Your task to perform on an android device: turn off location Image 0: 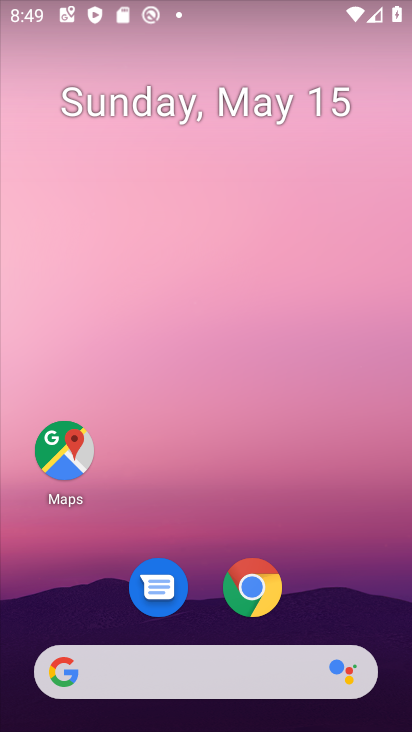
Step 0: drag from (330, 428) to (264, 129)
Your task to perform on an android device: turn off location Image 1: 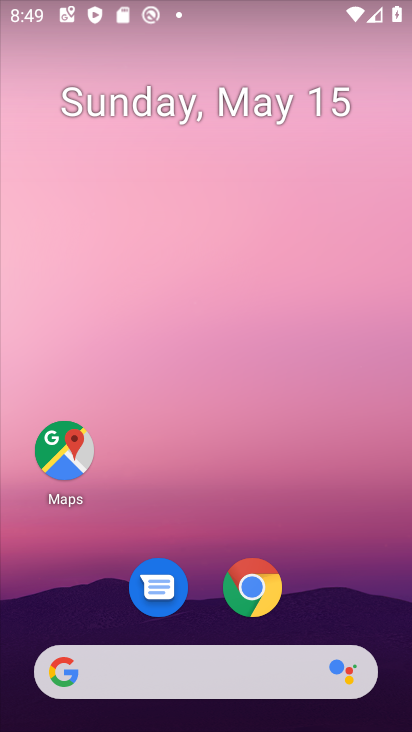
Step 1: drag from (359, 442) to (302, 43)
Your task to perform on an android device: turn off location Image 2: 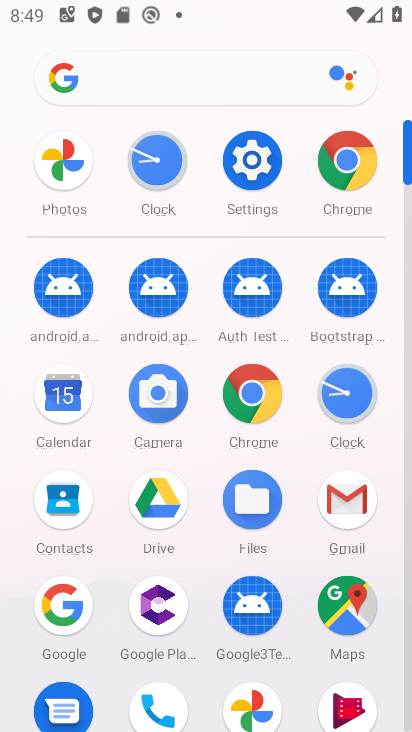
Step 2: click (256, 169)
Your task to perform on an android device: turn off location Image 3: 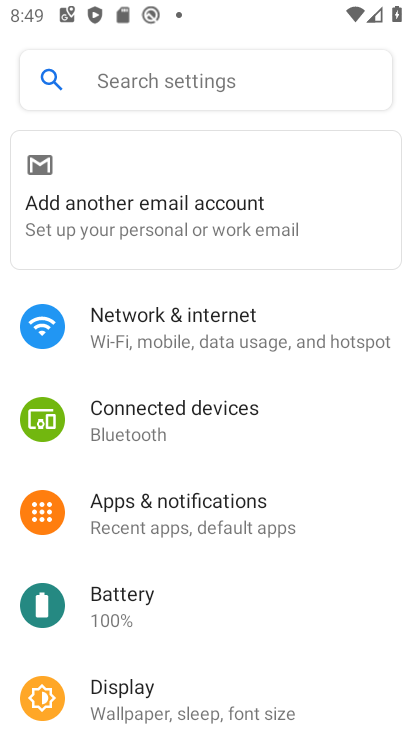
Step 3: drag from (132, 695) to (184, 198)
Your task to perform on an android device: turn off location Image 4: 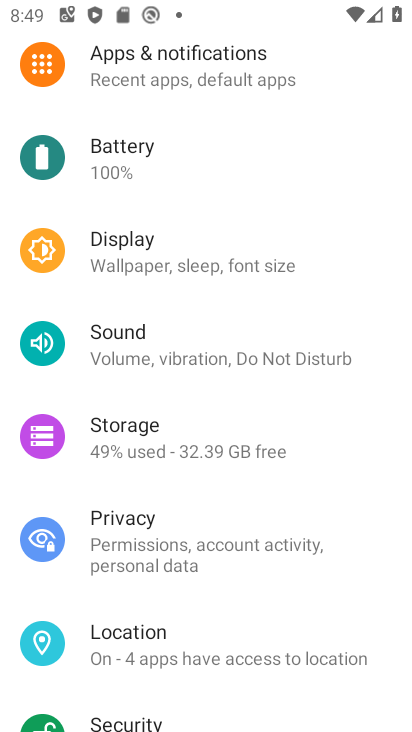
Step 4: click (225, 658)
Your task to perform on an android device: turn off location Image 5: 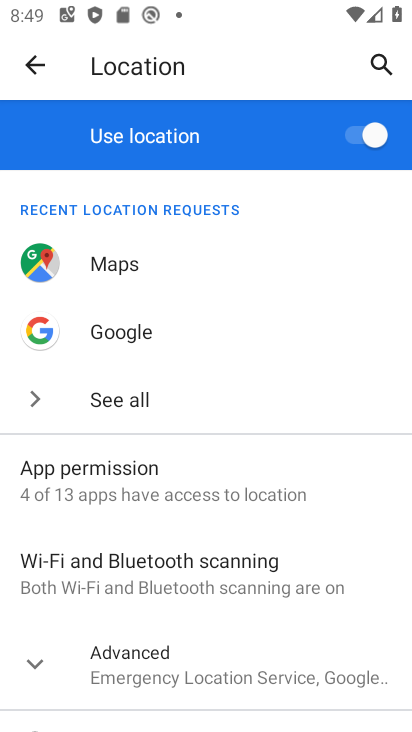
Step 5: click (225, 658)
Your task to perform on an android device: turn off location Image 6: 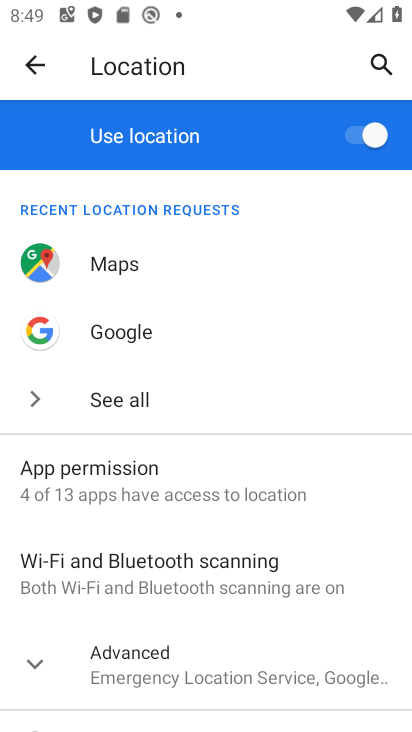
Step 6: click (225, 658)
Your task to perform on an android device: turn off location Image 7: 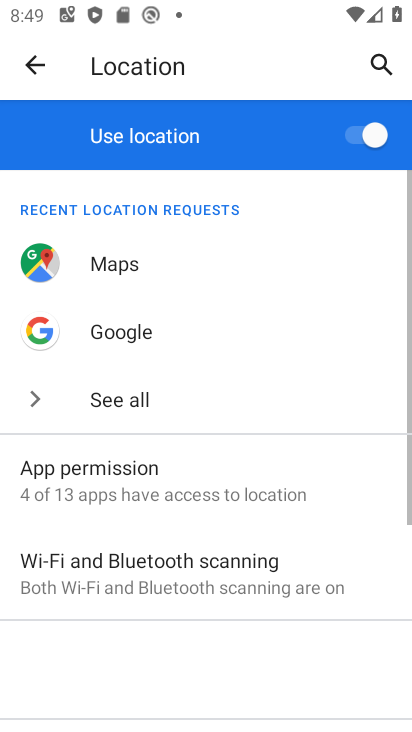
Step 7: click (267, 498)
Your task to perform on an android device: turn off location Image 8: 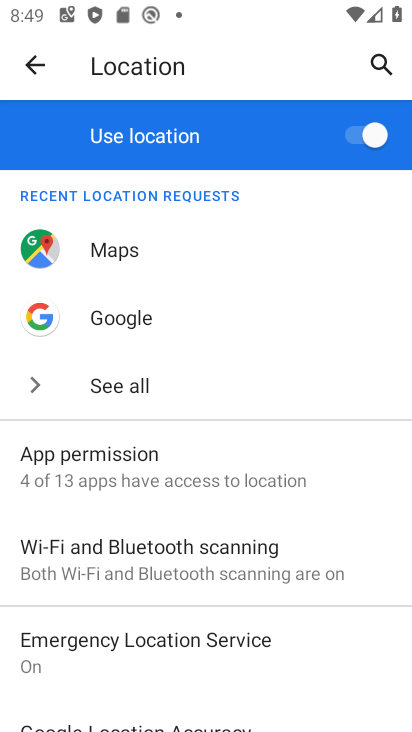
Step 8: click (349, 149)
Your task to perform on an android device: turn off location Image 9: 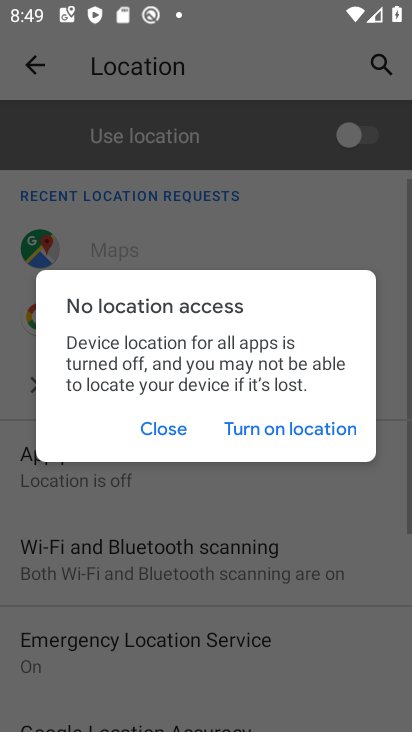
Step 9: task complete